Your task to perform on an android device: Open the map Image 0: 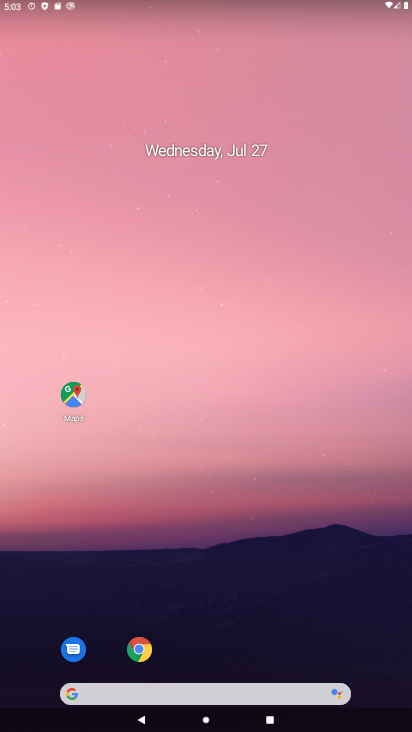
Step 0: drag from (160, 688) to (202, 78)
Your task to perform on an android device: Open the map Image 1: 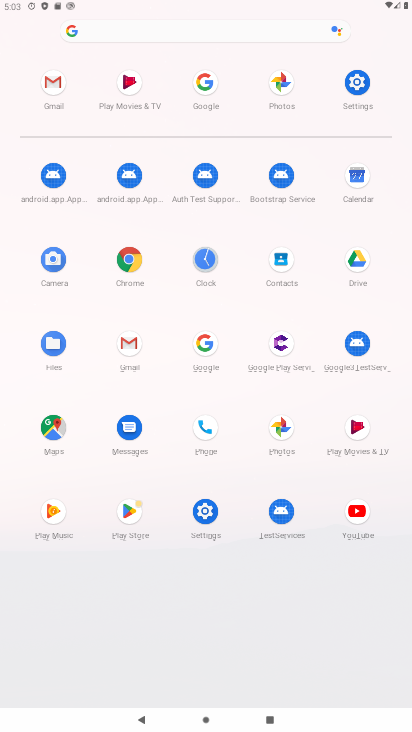
Step 1: click (52, 432)
Your task to perform on an android device: Open the map Image 2: 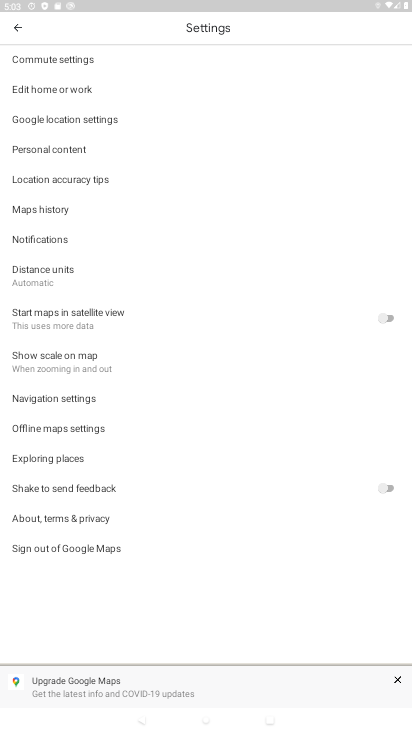
Step 2: task complete